Your task to perform on an android device: Show me productivity apps on the Play Store Image 0: 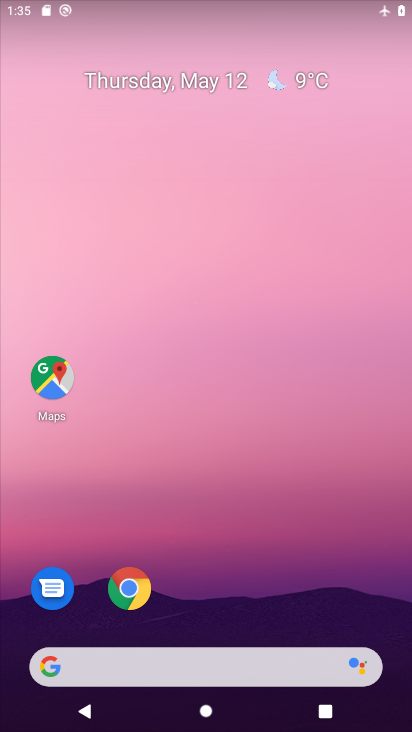
Step 0: drag from (308, 520) to (326, 49)
Your task to perform on an android device: Show me productivity apps on the Play Store Image 1: 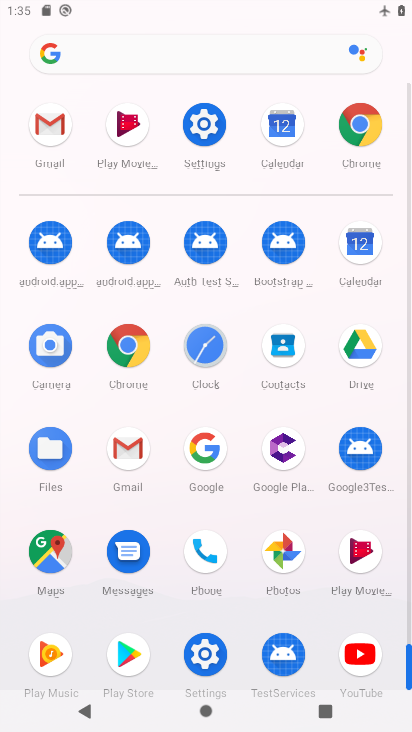
Step 1: click (144, 656)
Your task to perform on an android device: Show me productivity apps on the Play Store Image 2: 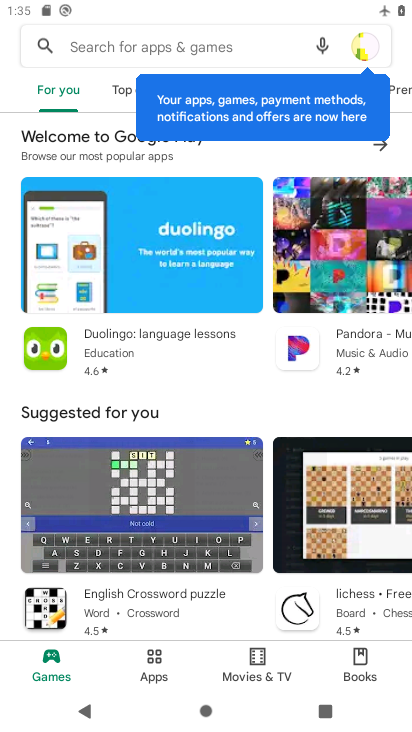
Step 2: click (104, 47)
Your task to perform on an android device: Show me productivity apps on the Play Store Image 3: 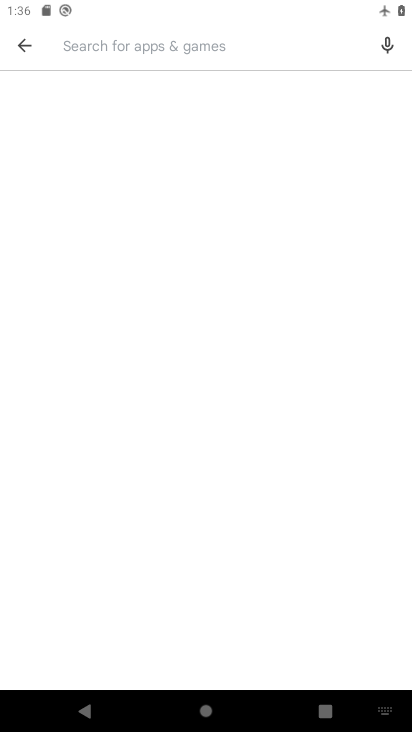
Step 3: type "productivity apps"
Your task to perform on an android device: Show me productivity apps on the Play Store Image 4: 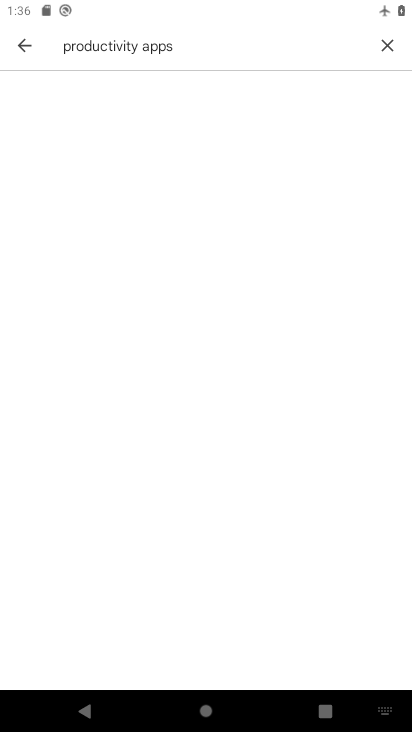
Step 4: press enter
Your task to perform on an android device: Show me productivity apps on the Play Store Image 5: 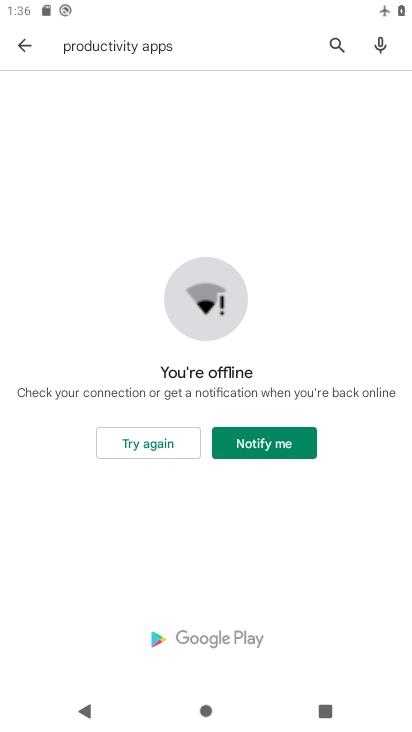
Step 5: task complete